Your task to perform on an android device: Go to Wikipedia Image 0: 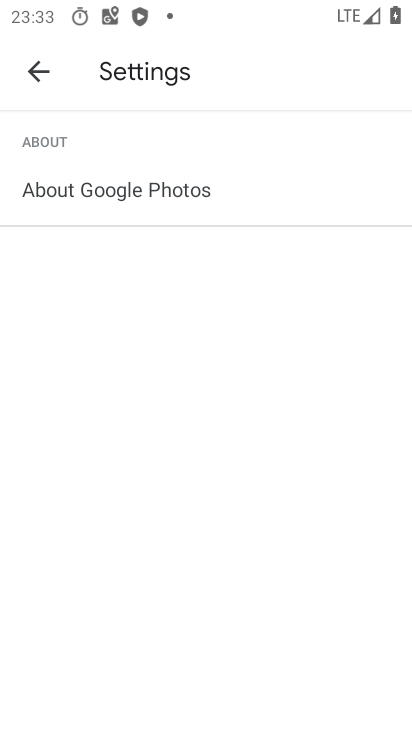
Step 0: press home button
Your task to perform on an android device: Go to Wikipedia Image 1: 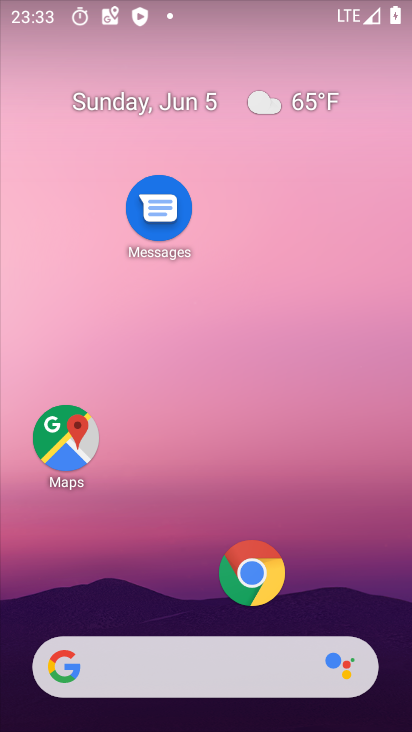
Step 1: click (247, 569)
Your task to perform on an android device: Go to Wikipedia Image 2: 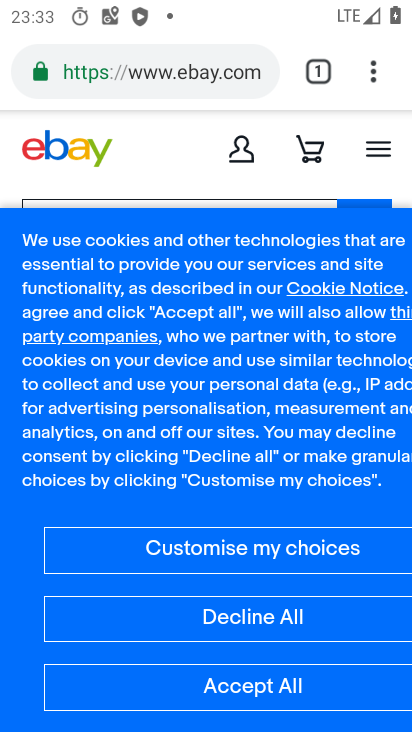
Step 2: click (184, 66)
Your task to perform on an android device: Go to Wikipedia Image 3: 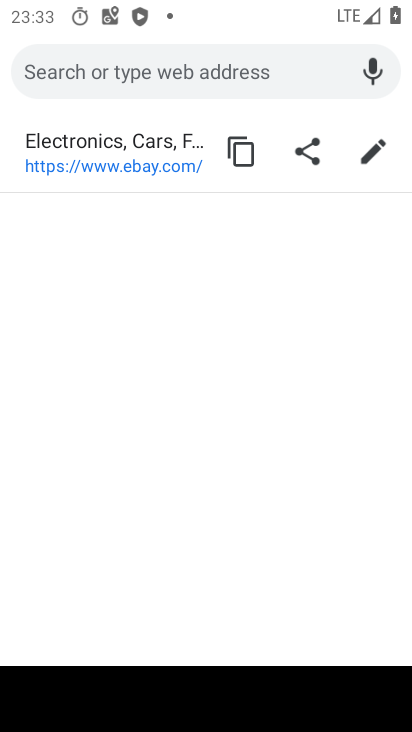
Step 3: type "wikipedia"
Your task to perform on an android device: Go to Wikipedia Image 4: 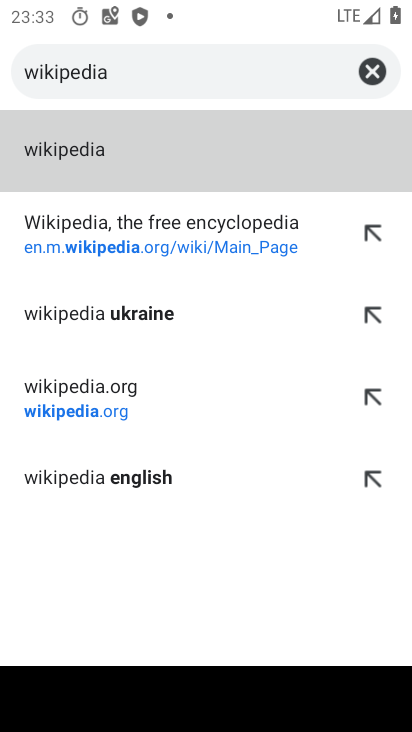
Step 4: click (61, 414)
Your task to perform on an android device: Go to Wikipedia Image 5: 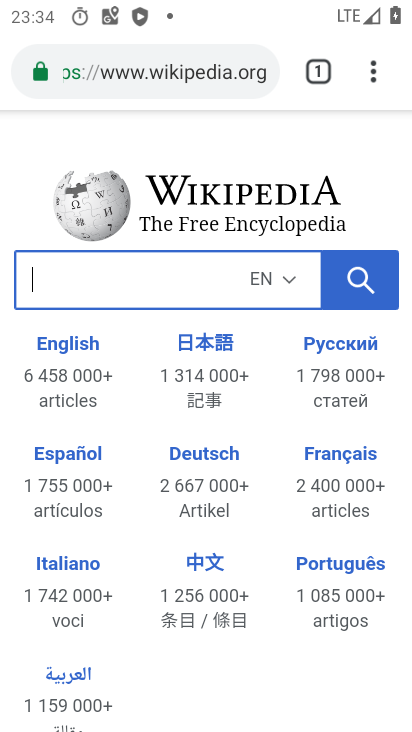
Step 5: task complete